Your task to perform on an android device: change notification settings in the gmail app Image 0: 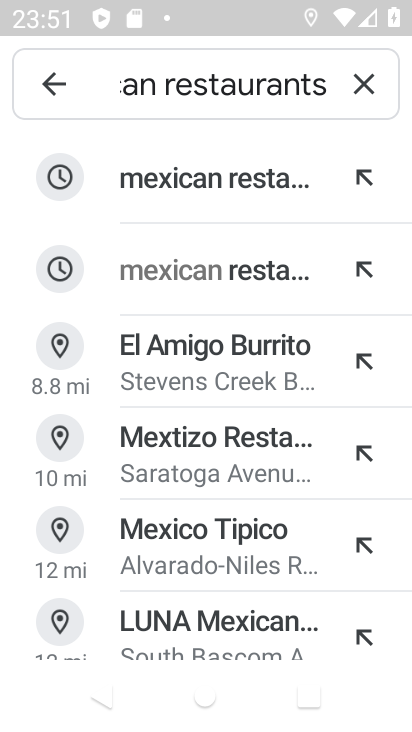
Step 0: press home button
Your task to perform on an android device: change notification settings in the gmail app Image 1: 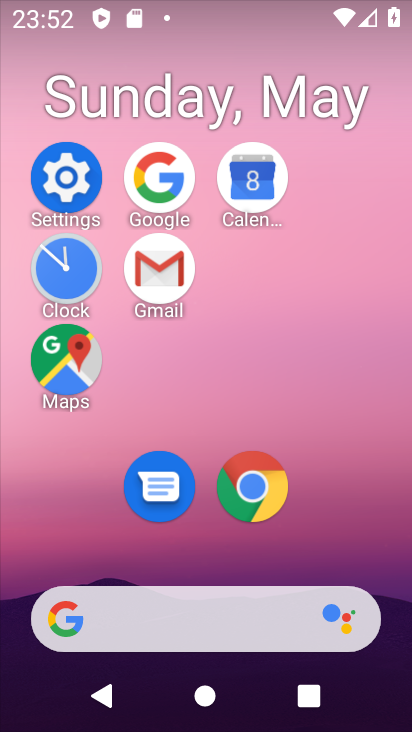
Step 1: click (141, 275)
Your task to perform on an android device: change notification settings in the gmail app Image 2: 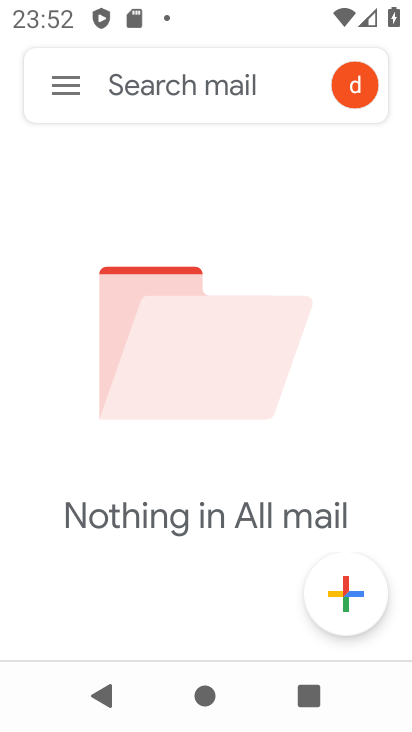
Step 2: click (43, 81)
Your task to perform on an android device: change notification settings in the gmail app Image 3: 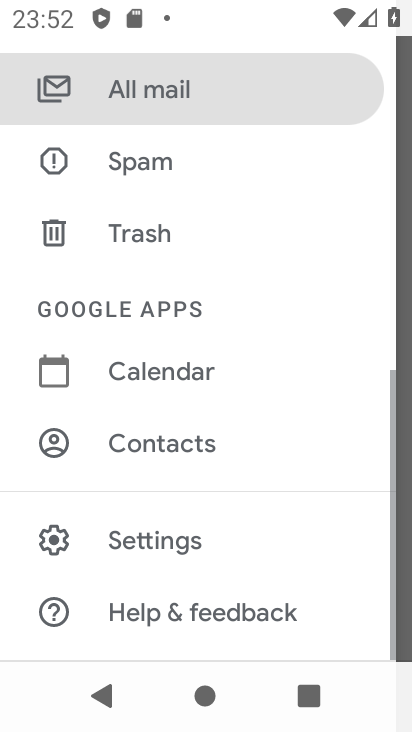
Step 3: click (189, 548)
Your task to perform on an android device: change notification settings in the gmail app Image 4: 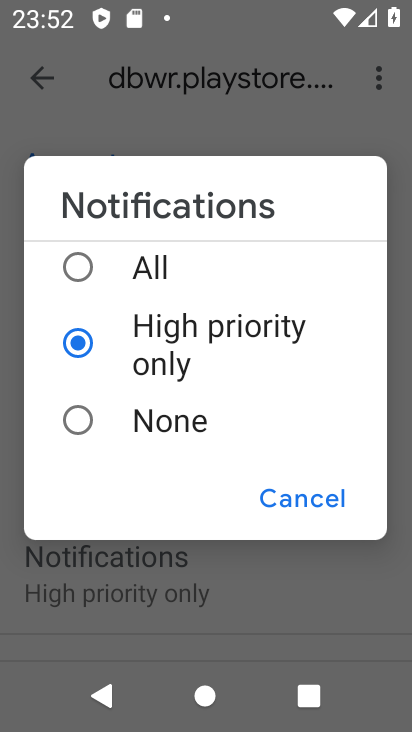
Step 4: click (160, 277)
Your task to perform on an android device: change notification settings in the gmail app Image 5: 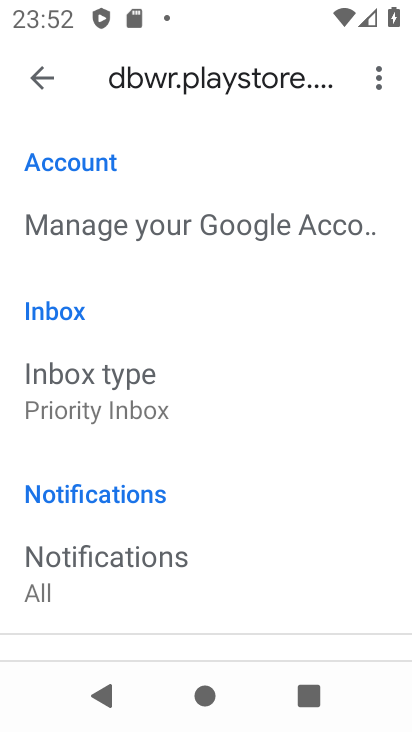
Step 5: task complete